Your task to perform on an android device: turn off picture-in-picture Image 0: 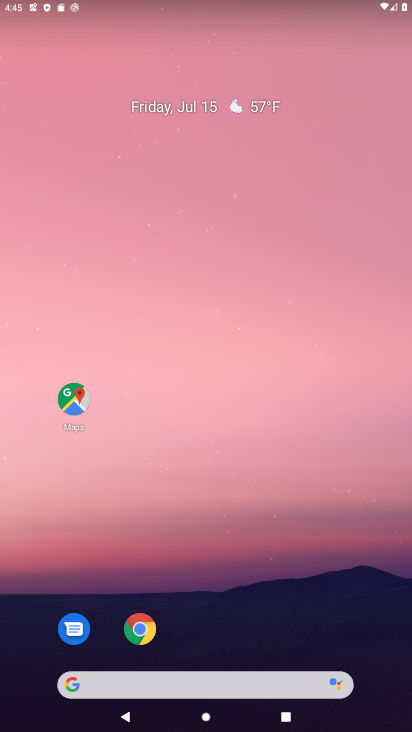
Step 0: press home button
Your task to perform on an android device: turn off picture-in-picture Image 1: 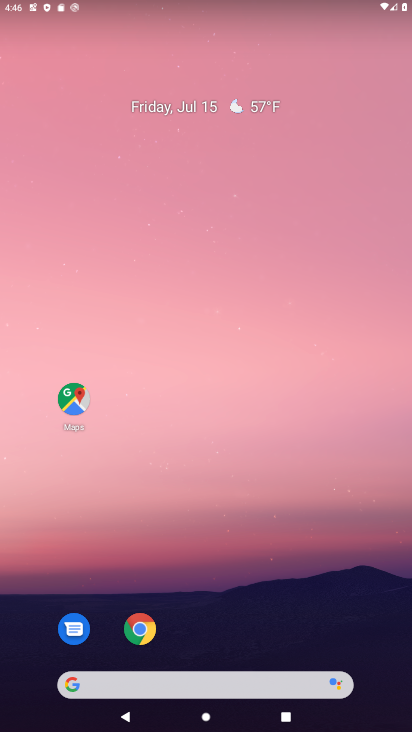
Step 1: click (146, 624)
Your task to perform on an android device: turn off picture-in-picture Image 2: 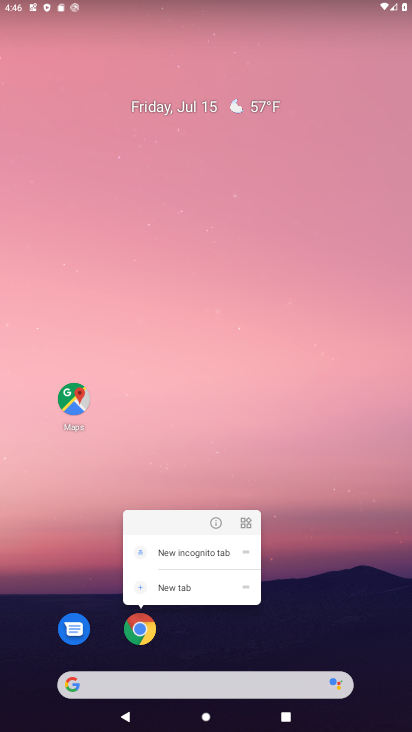
Step 2: click (213, 523)
Your task to perform on an android device: turn off picture-in-picture Image 3: 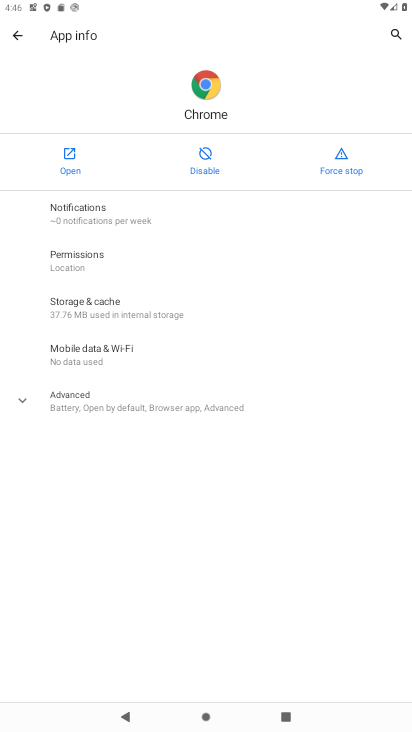
Step 3: click (76, 400)
Your task to perform on an android device: turn off picture-in-picture Image 4: 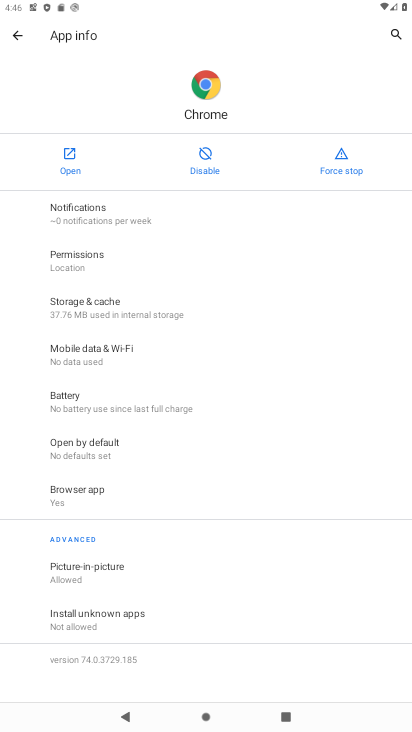
Step 4: click (85, 570)
Your task to perform on an android device: turn off picture-in-picture Image 5: 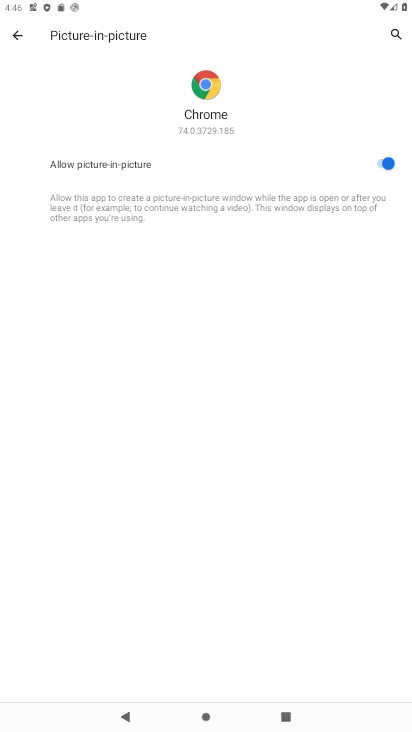
Step 5: click (382, 160)
Your task to perform on an android device: turn off picture-in-picture Image 6: 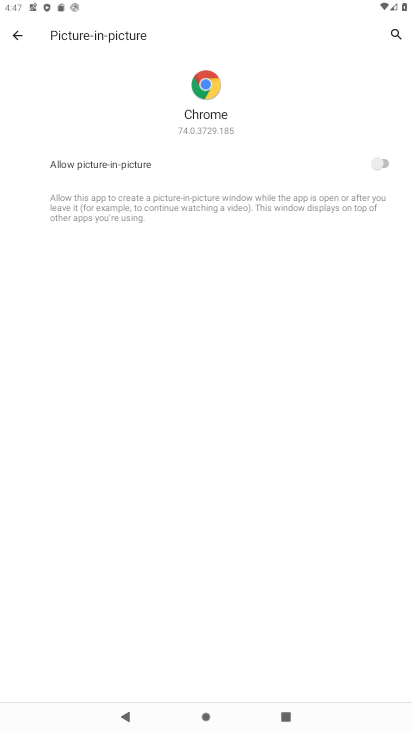
Step 6: task complete